Your task to perform on an android device: Open calendar and show me the fourth week of next month Image 0: 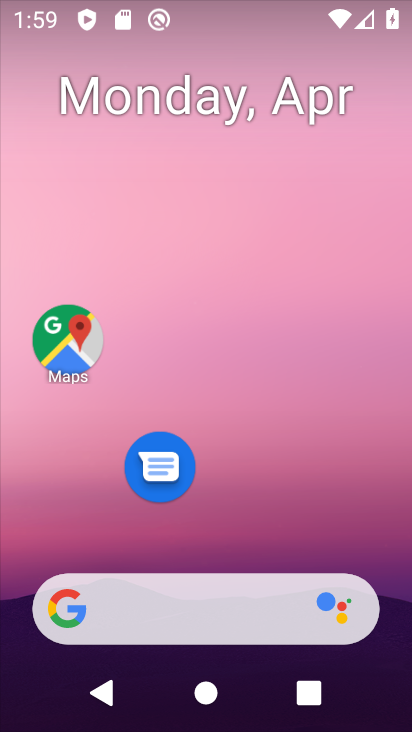
Step 0: drag from (285, 541) to (247, 26)
Your task to perform on an android device: Open calendar and show me the fourth week of next month Image 1: 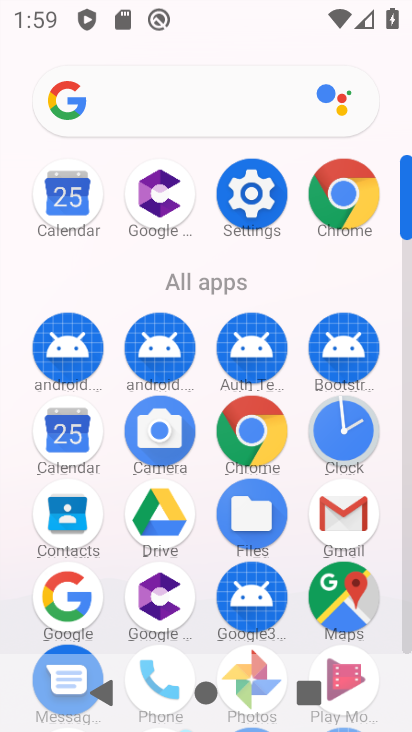
Step 1: click (66, 440)
Your task to perform on an android device: Open calendar and show me the fourth week of next month Image 2: 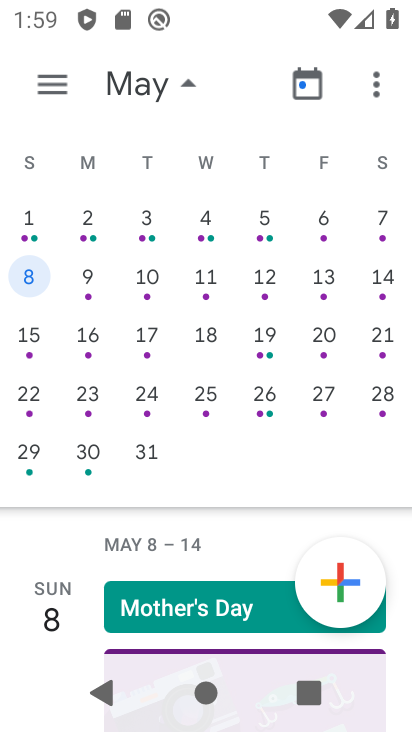
Step 2: click (40, 396)
Your task to perform on an android device: Open calendar and show me the fourth week of next month Image 3: 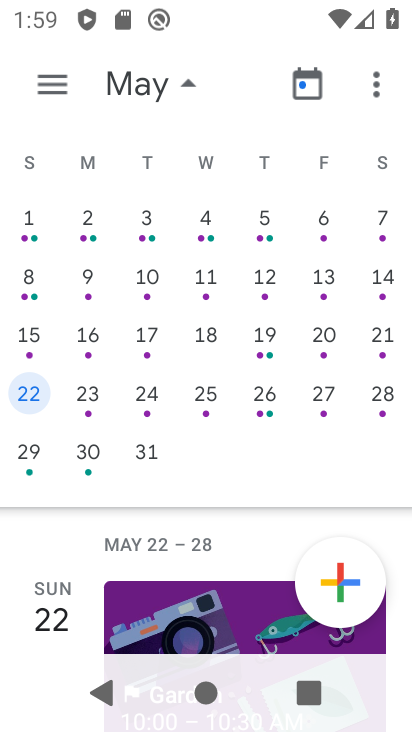
Step 3: task complete